Your task to perform on an android device: install app "Truecaller" Image 0: 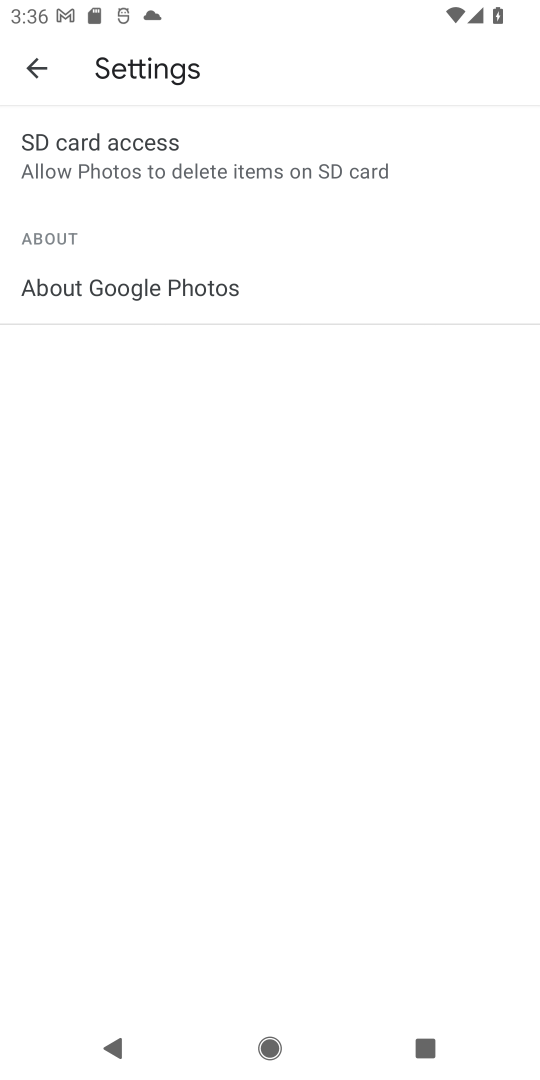
Step 0: press back button
Your task to perform on an android device: install app "Truecaller" Image 1: 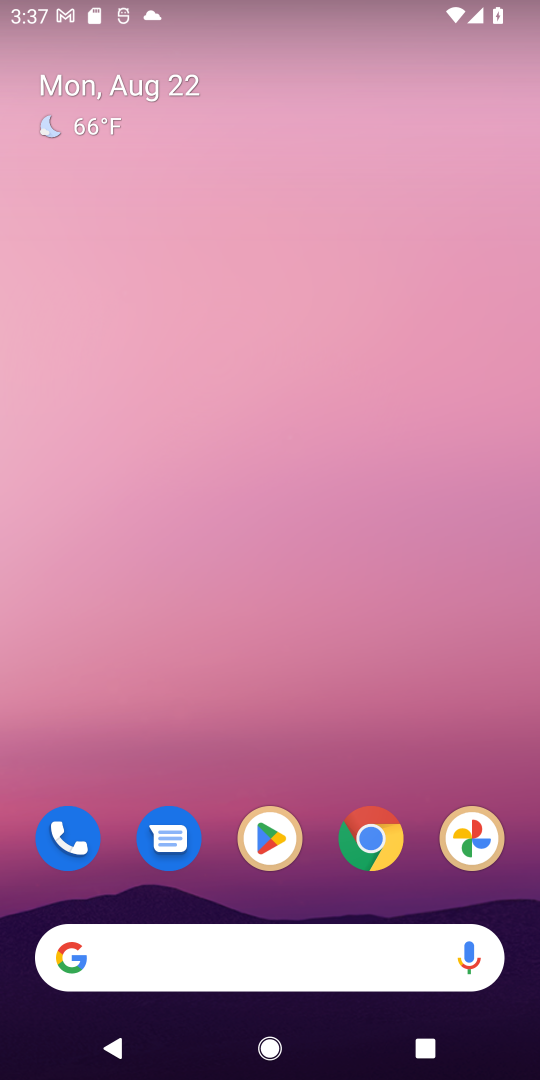
Step 1: click (290, 848)
Your task to perform on an android device: install app "Truecaller" Image 2: 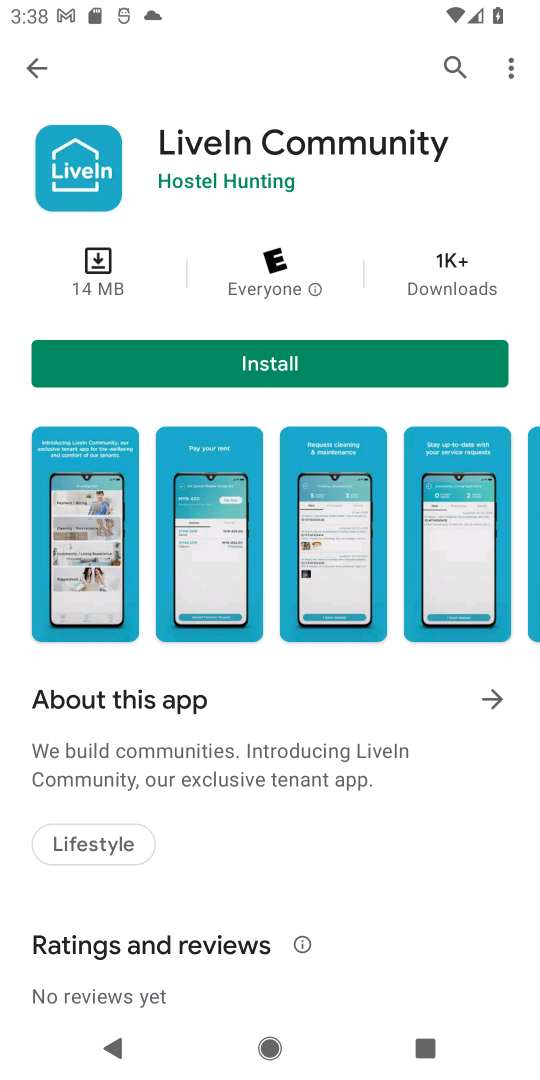
Step 2: click (455, 65)
Your task to perform on an android device: install app "Truecaller" Image 3: 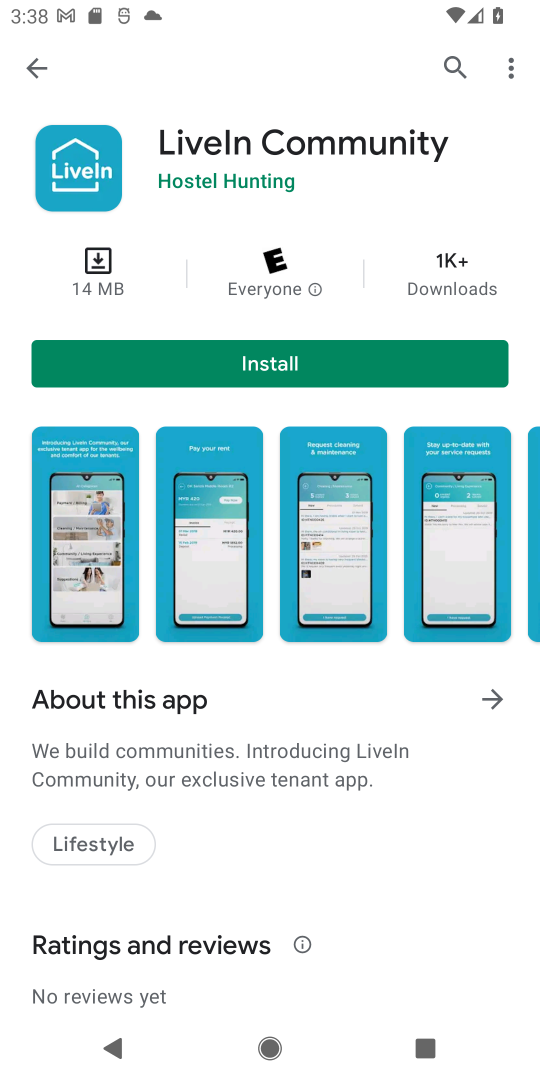
Step 3: click (455, 71)
Your task to perform on an android device: install app "Truecaller" Image 4: 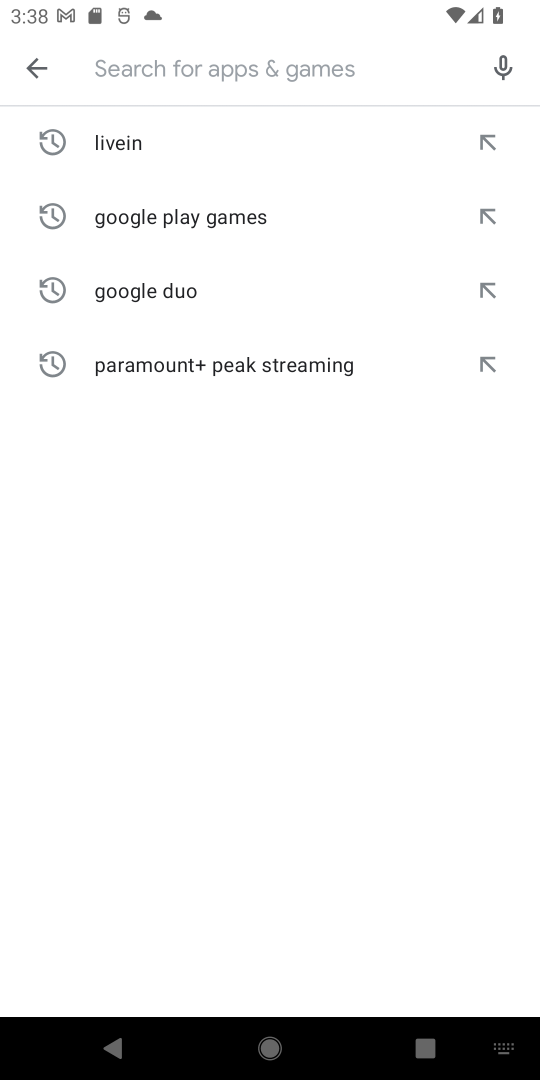
Step 4: click (157, 67)
Your task to perform on an android device: install app "Truecaller" Image 5: 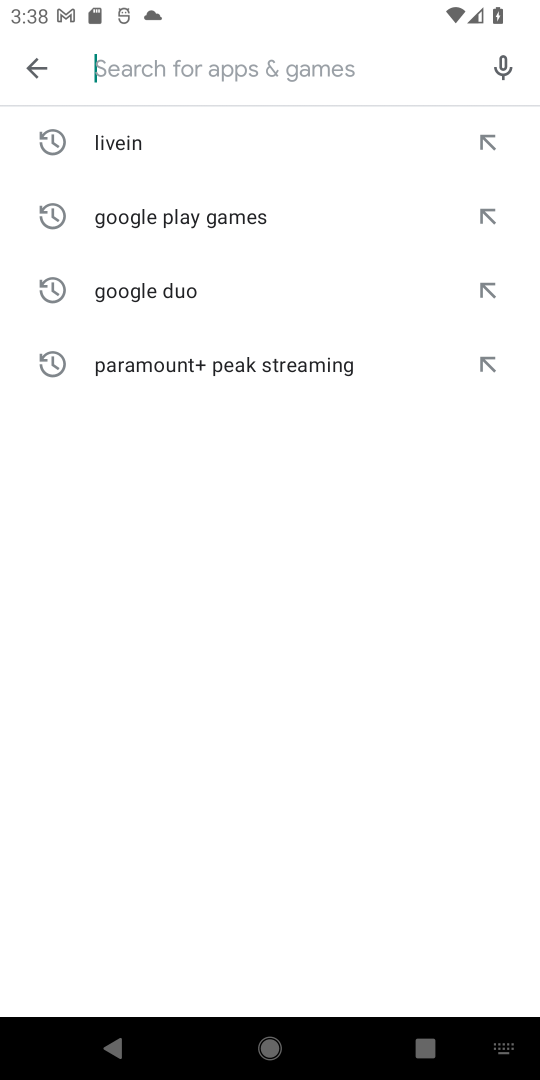
Step 5: type "Truecaller"
Your task to perform on an android device: install app "Truecaller" Image 6: 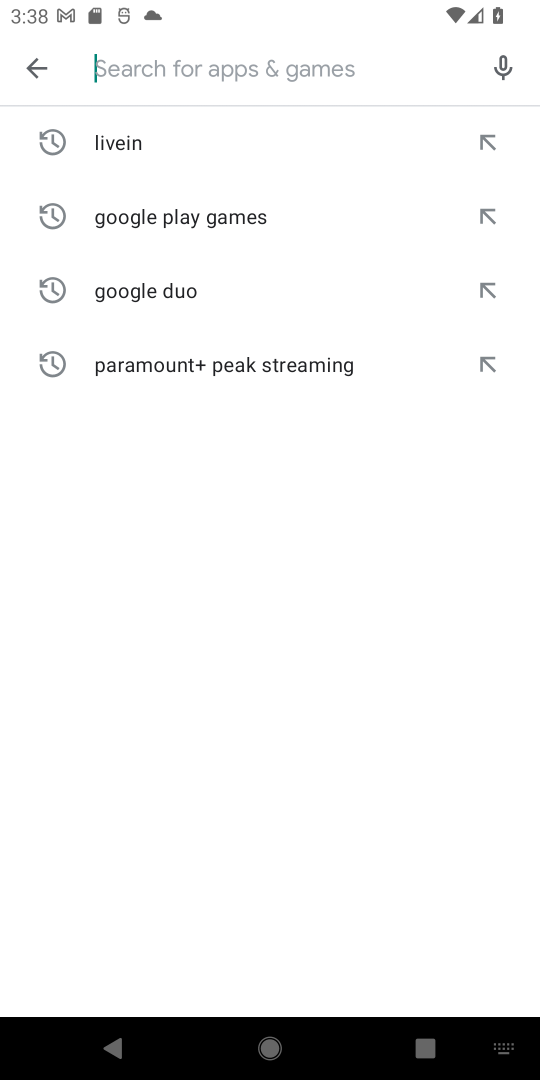
Step 6: click (258, 636)
Your task to perform on an android device: install app "Truecaller" Image 7: 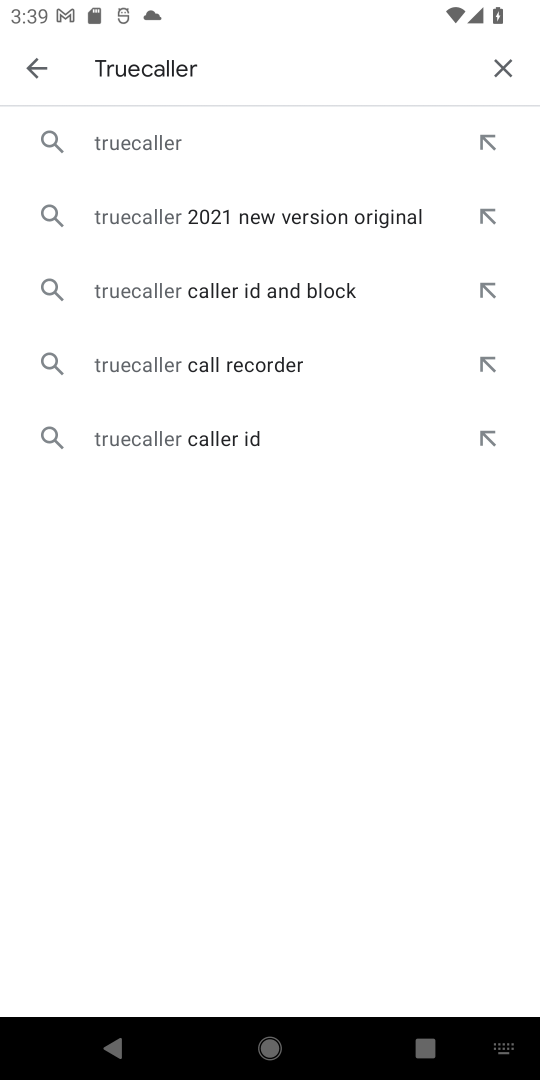
Step 7: click (130, 150)
Your task to perform on an android device: install app "Truecaller" Image 8: 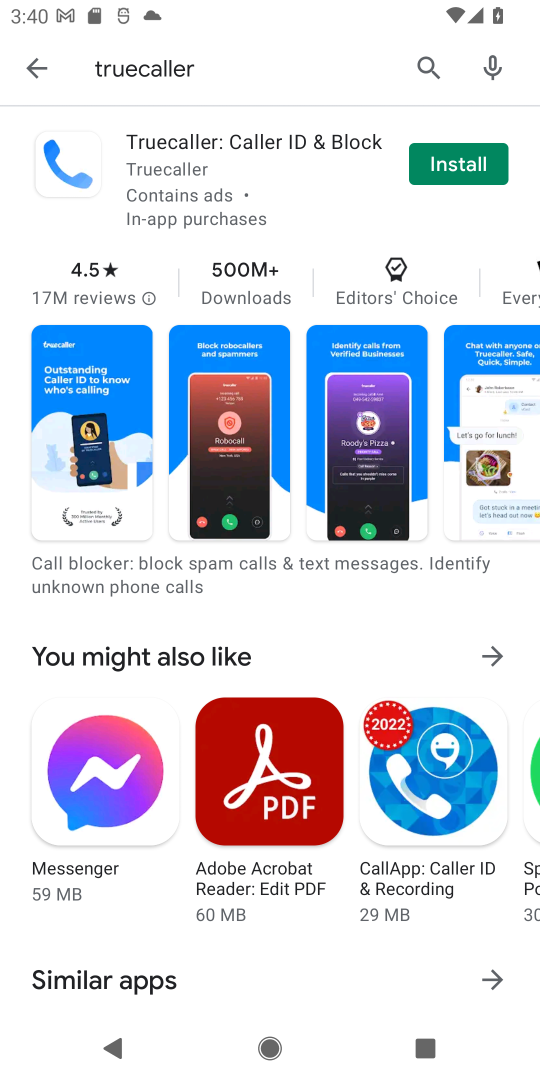
Step 8: click (459, 157)
Your task to perform on an android device: install app "Truecaller" Image 9: 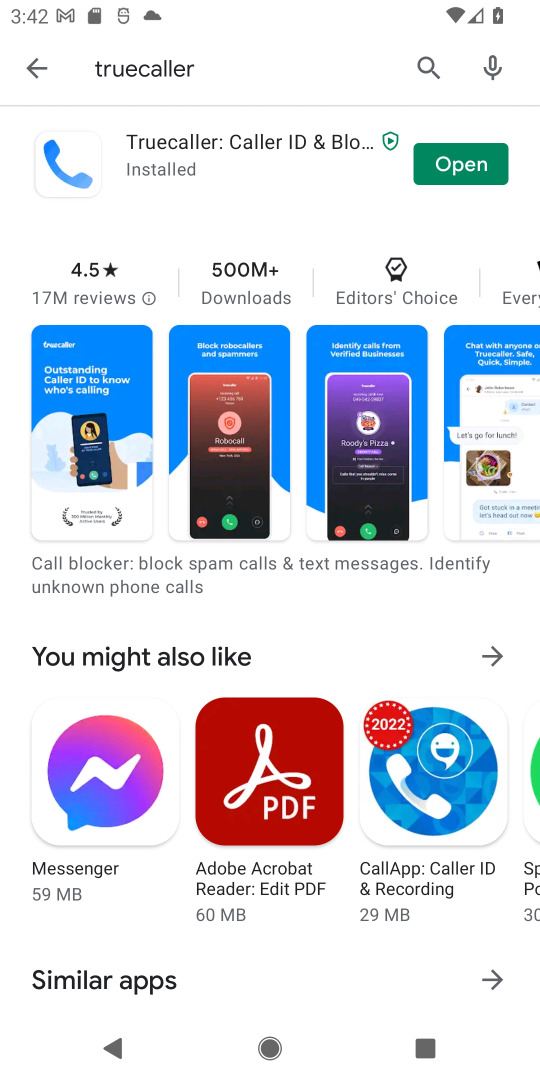
Step 9: click (450, 163)
Your task to perform on an android device: install app "Truecaller" Image 10: 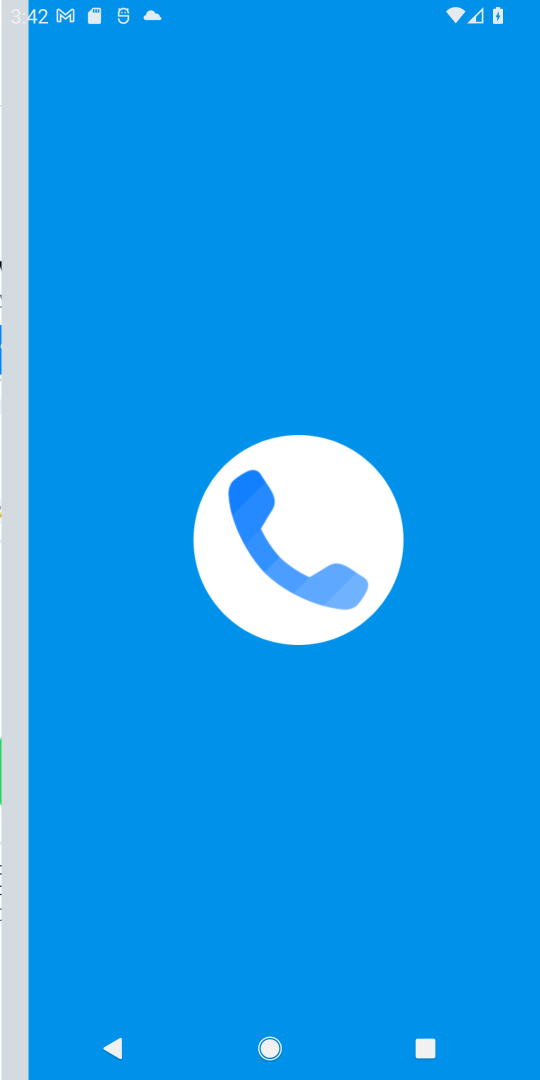
Step 10: task complete